Your task to perform on an android device: Clear the cart on walmart.com. Search for razer blade on walmart.com, select the first entry, add it to the cart, then select checkout. Image 0: 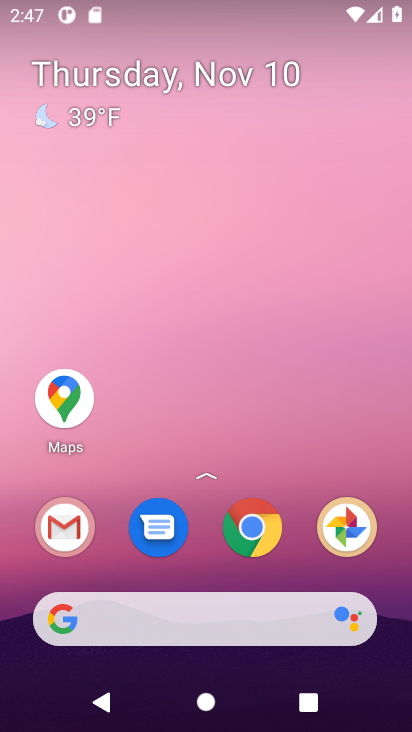
Step 0: drag from (139, 398) to (151, 89)
Your task to perform on an android device: Clear the cart on walmart.com. Search for razer blade on walmart.com, select the first entry, add it to the cart, then select checkout. Image 1: 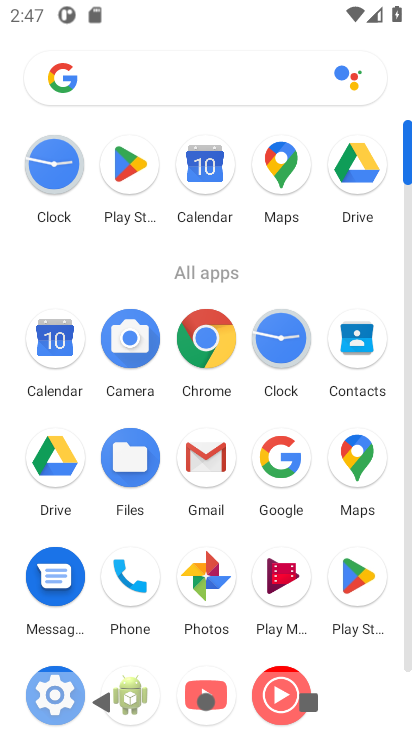
Step 1: click (218, 323)
Your task to perform on an android device: Clear the cart on walmart.com. Search for razer blade on walmart.com, select the first entry, add it to the cart, then select checkout. Image 2: 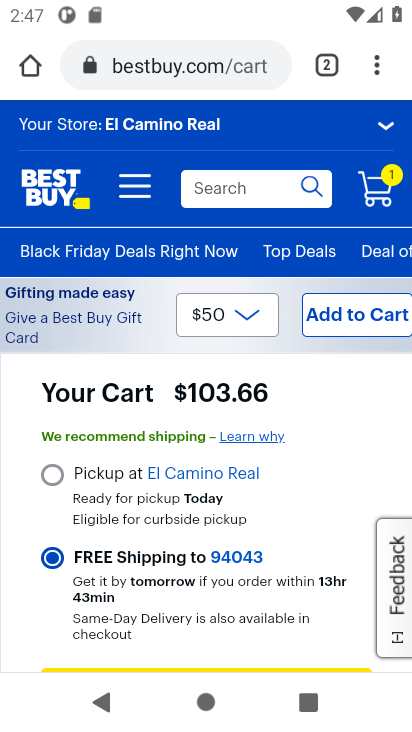
Step 2: click (191, 70)
Your task to perform on an android device: Clear the cart on walmart.com. Search for razer blade on walmart.com, select the first entry, add it to the cart, then select checkout. Image 3: 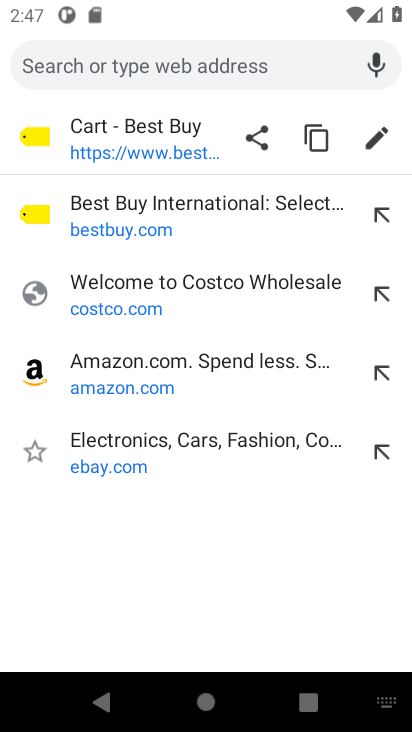
Step 3: type "walmart.com"
Your task to perform on an android device: Clear the cart on walmart.com. Search for razer blade on walmart.com, select the first entry, add it to the cart, then select checkout. Image 4: 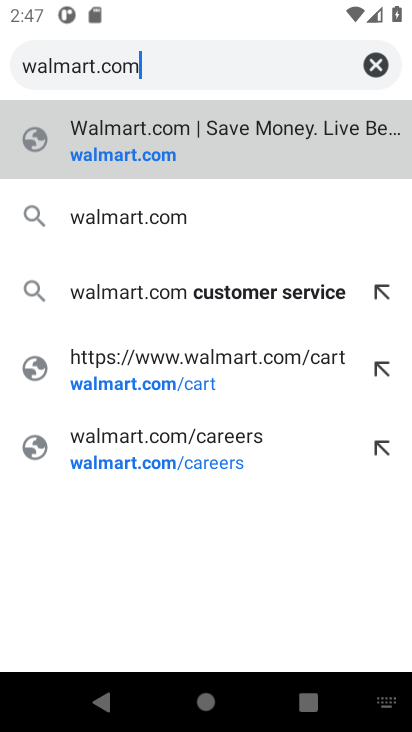
Step 4: press enter
Your task to perform on an android device: Clear the cart on walmart.com. Search for razer blade on walmart.com, select the first entry, add it to the cart, then select checkout. Image 5: 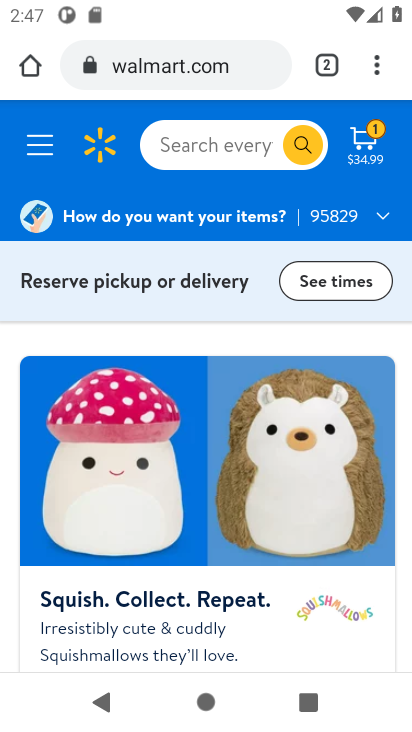
Step 5: click (352, 144)
Your task to perform on an android device: Clear the cart on walmart.com. Search for razer blade on walmart.com, select the first entry, add it to the cart, then select checkout. Image 6: 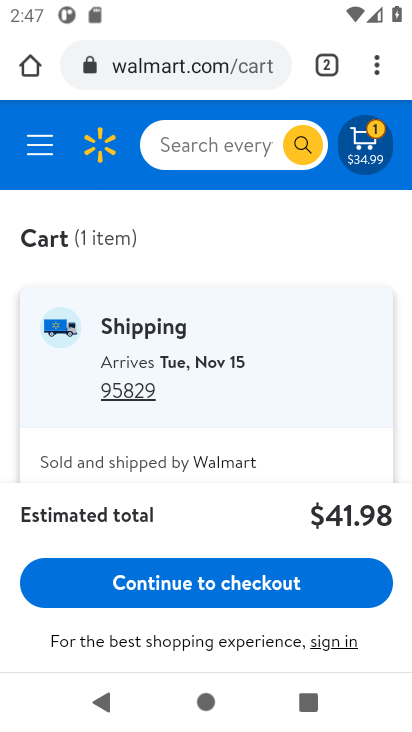
Step 6: drag from (236, 602) to (230, 301)
Your task to perform on an android device: Clear the cart on walmart.com. Search for razer blade on walmart.com, select the first entry, add it to the cart, then select checkout. Image 7: 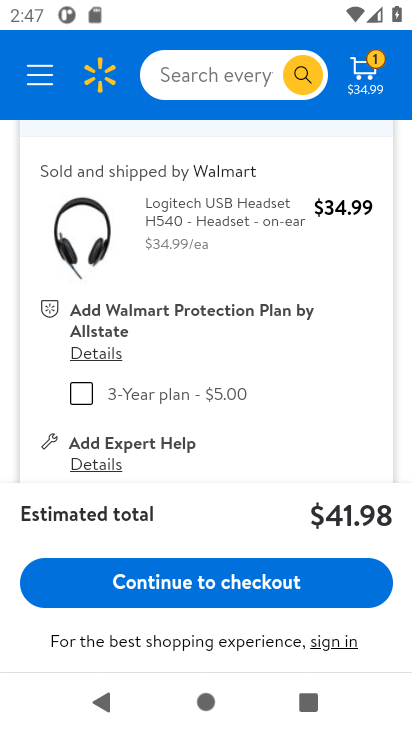
Step 7: drag from (263, 462) to (248, 174)
Your task to perform on an android device: Clear the cart on walmart.com. Search for razer blade on walmart.com, select the first entry, add it to the cart, then select checkout. Image 8: 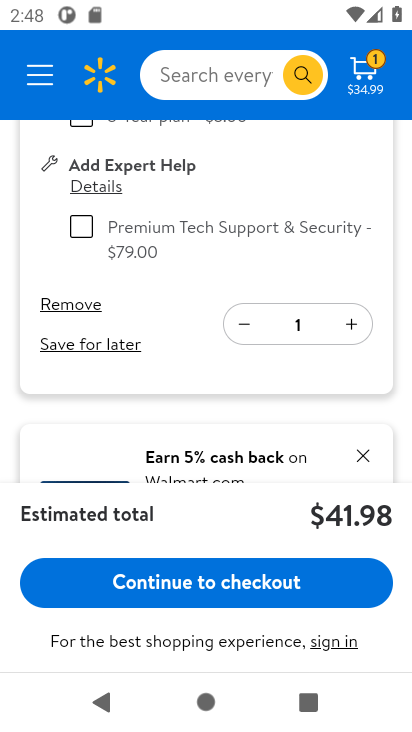
Step 8: drag from (262, 426) to (279, 184)
Your task to perform on an android device: Clear the cart on walmart.com. Search for razer blade on walmart.com, select the first entry, add it to the cart, then select checkout. Image 9: 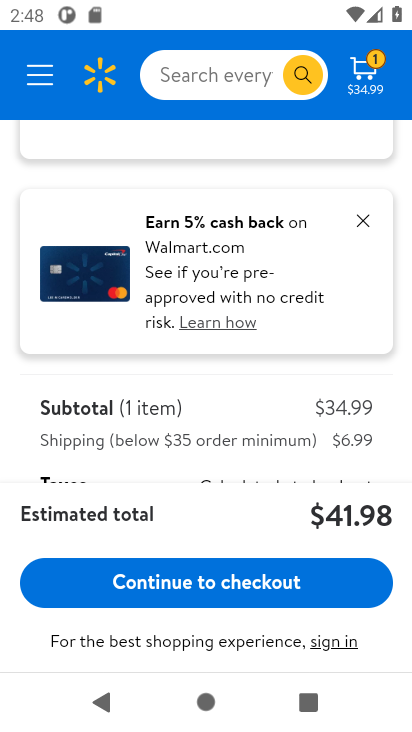
Step 9: click (363, 221)
Your task to perform on an android device: Clear the cart on walmart.com. Search for razer blade on walmart.com, select the first entry, add it to the cart, then select checkout. Image 10: 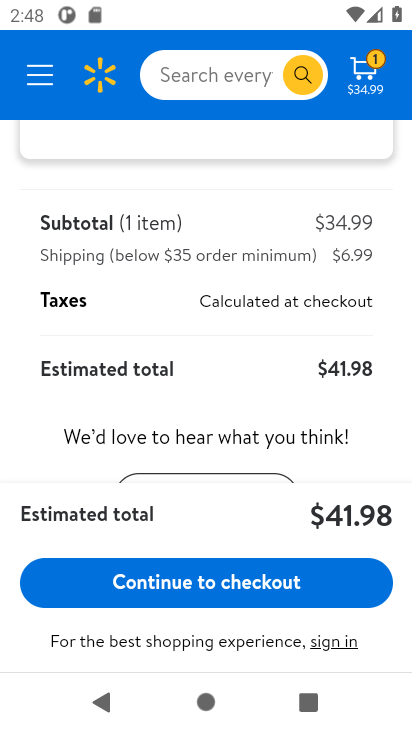
Step 10: drag from (294, 214) to (297, 385)
Your task to perform on an android device: Clear the cart on walmart.com. Search for razer blade on walmart.com, select the first entry, add it to the cart, then select checkout. Image 11: 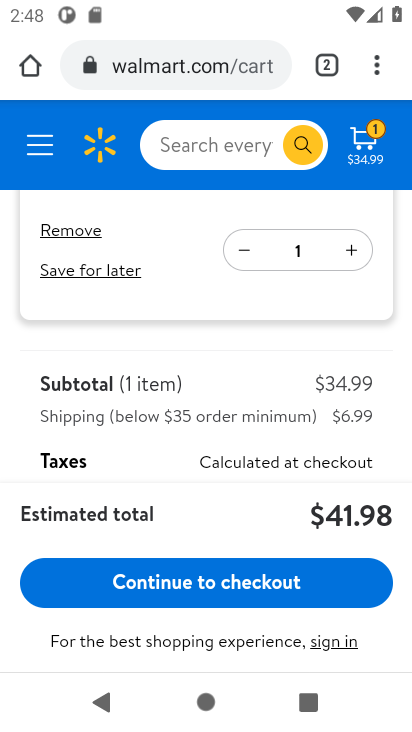
Step 11: drag from (258, 239) to (277, 436)
Your task to perform on an android device: Clear the cart on walmart.com. Search for razer blade on walmart.com, select the first entry, add it to the cart, then select checkout. Image 12: 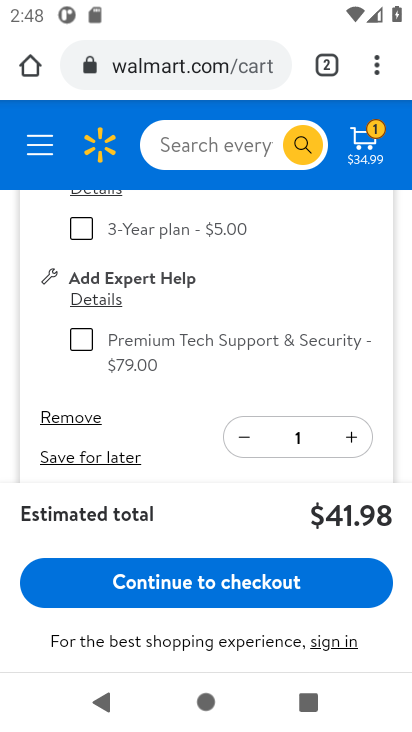
Step 12: drag from (257, 238) to (274, 450)
Your task to perform on an android device: Clear the cart on walmart.com. Search for razer blade on walmart.com, select the first entry, add it to the cart, then select checkout. Image 13: 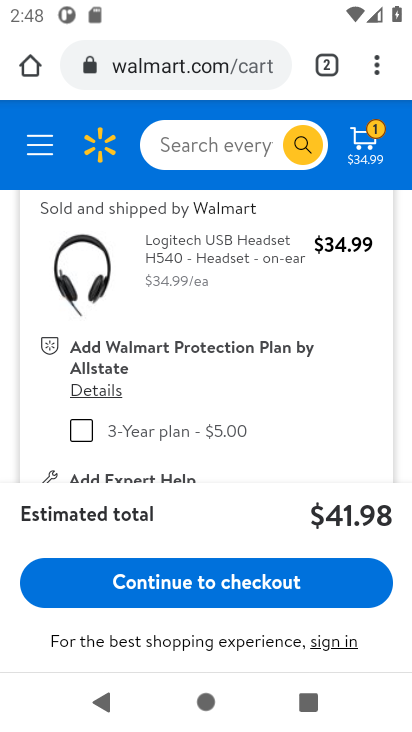
Step 13: drag from (308, 195) to (319, 427)
Your task to perform on an android device: Clear the cart on walmart.com. Search for razer blade on walmart.com, select the first entry, add it to the cart, then select checkout. Image 14: 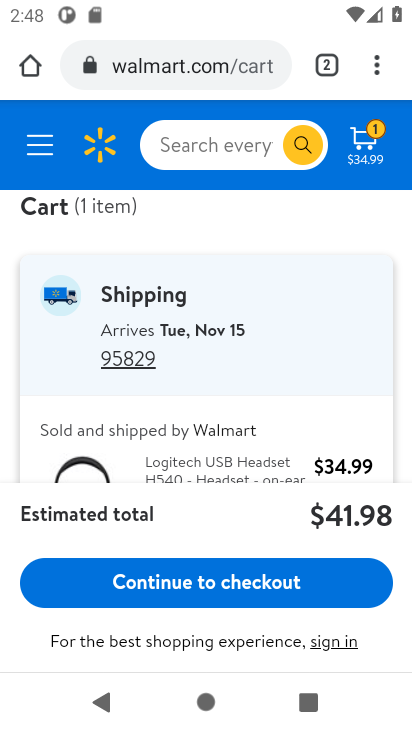
Step 14: drag from (283, 272) to (303, 504)
Your task to perform on an android device: Clear the cart on walmart.com. Search for razer blade on walmart.com, select the first entry, add it to the cart, then select checkout. Image 15: 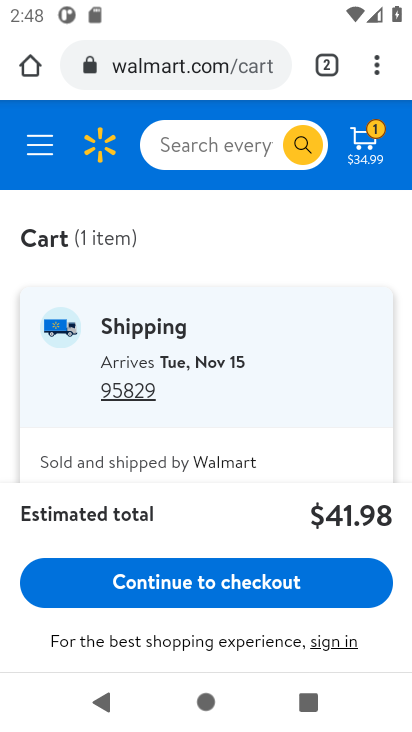
Step 15: click (297, 262)
Your task to perform on an android device: Clear the cart on walmart.com. Search for razer blade on walmart.com, select the first entry, add it to the cart, then select checkout. Image 16: 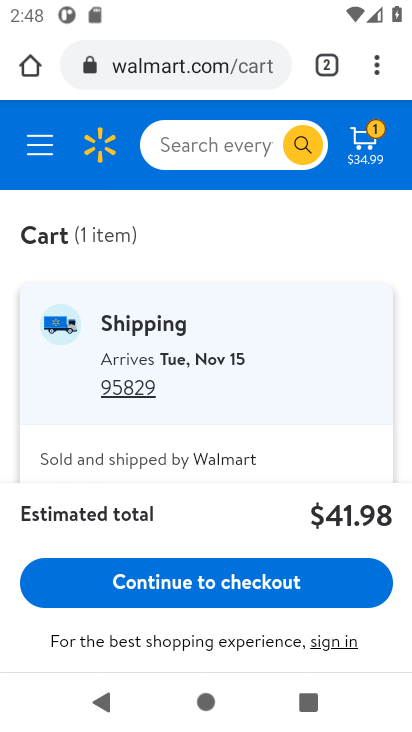
Step 16: drag from (241, 459) to (228, 219)
Your task to perform on an android device: Clear the cart on walmart.com. Search for razer blade on walmart.com, select the first entry, add it to the cart, then select checkout. Image 17: 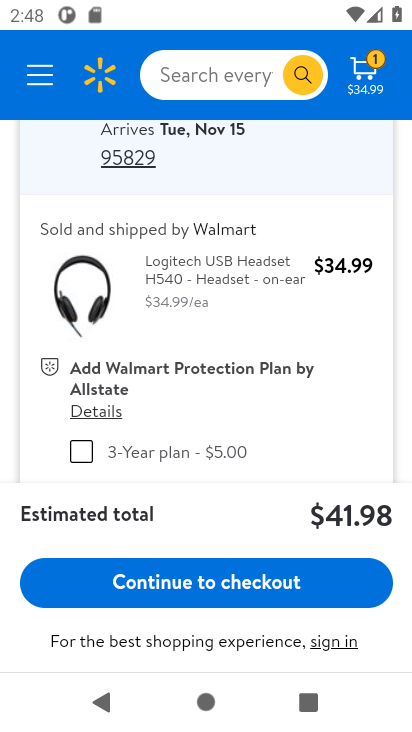
Step 17: drag from (231, 368) to (241, 144)
Your task to perform on an android device: Clear the cart on walmart.com. Search for razer blade on walmart.com, select the first entry, add it to the cart, then select checkout. Image 18: 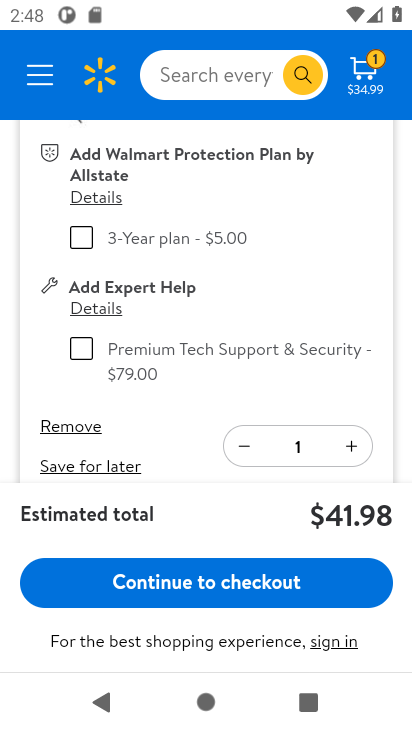
Step 18: click (248, 446)
Your task to perform on an android device: Clear the cart on walmart.com. Search for razer blade on walmart.com, select the first entry, add it to the cart, then select checkout. Image 19: 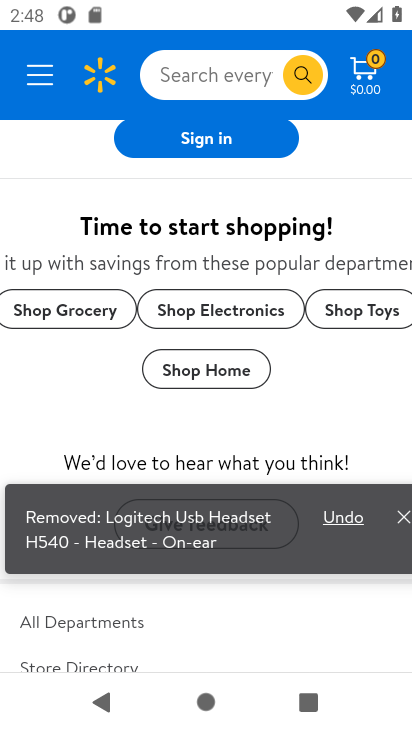
Step 19: click (181, 74)
Your task to perform on an android device: Clear the cart on walmart.com. Search for razer blade on walmart.com, select the first entry, add it to the cart, then select checkout. Image 20: 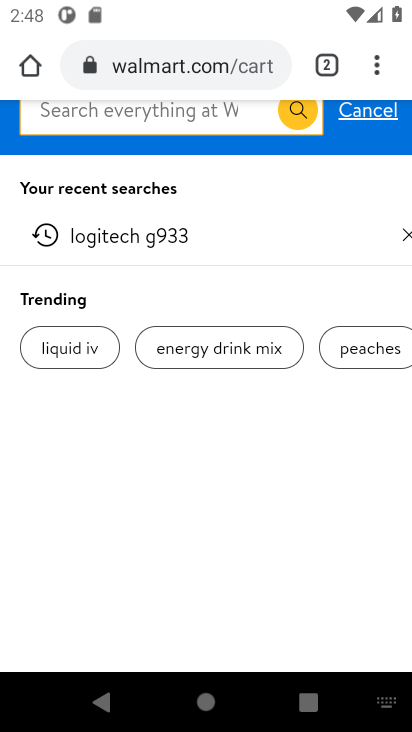
Step 20: type "razer blade "
Your task to perform on an android device: Clear the cart on walmart.com. Search for razer blade on walmart.com, select the first entry, add it to the cart, then select checkout. Image 21: 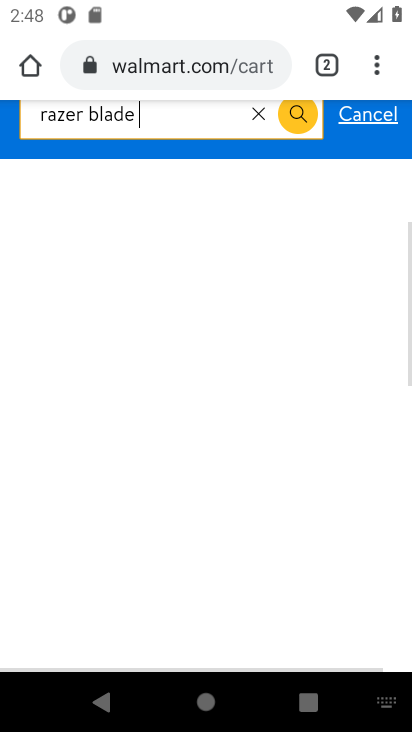
Step 21: press enter
Your task to perform on an android device: Clear the cart on walmart.com. Search for razer blade on walmart.com, select the first entry, add it to the cart, then select checkout. Image 22: 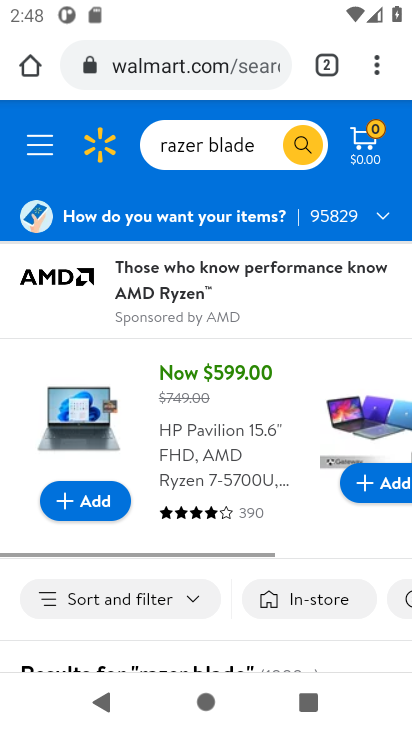
Step 22: click (371, 481)
Your task to perform on an android device: Clear the cart on walmart.com. Search for razer blade on walmart.com, select the first entry, add it to the cart, then select checkout. Image 23: 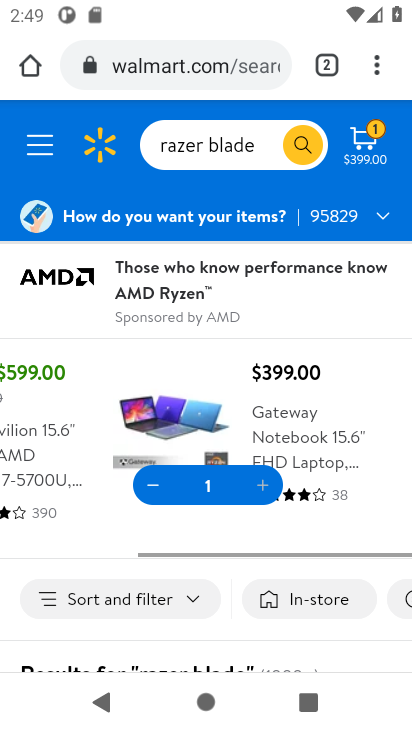
Step 23: click (362, 138)
Your task to perform on an android device: Clear the cart on walmart.com. Search for razer blade on walmart.com, select the first entry, add it to the cart, then select checkout. Image 24: 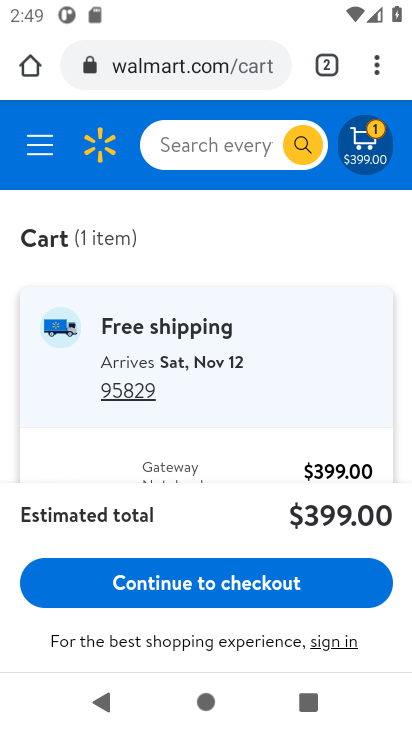
Step 24: click (220, 581)
Your task to perform on an android device: Clear the cart on walmart.com. Search for razer blade on walmart.com, select the first entry, add it to the cart, then select checkout. Image 25: 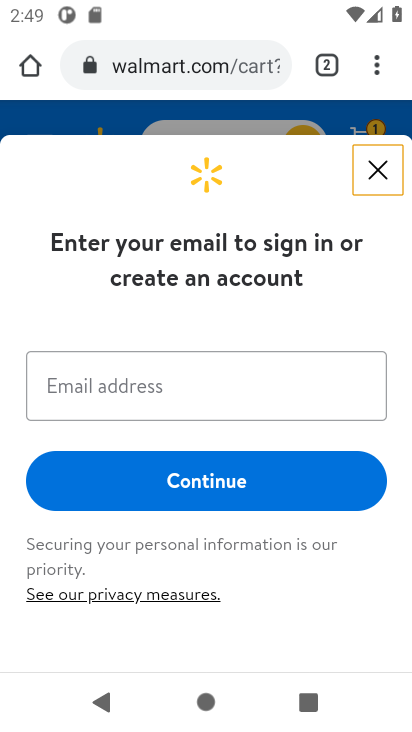
Step 25: click (373, 179)
Your task to perform on an android device: Clear the cart on walmart.com. Search for razer blade on walmart.com, select the first entry, add it to the cart, then select checkout. Image 26: 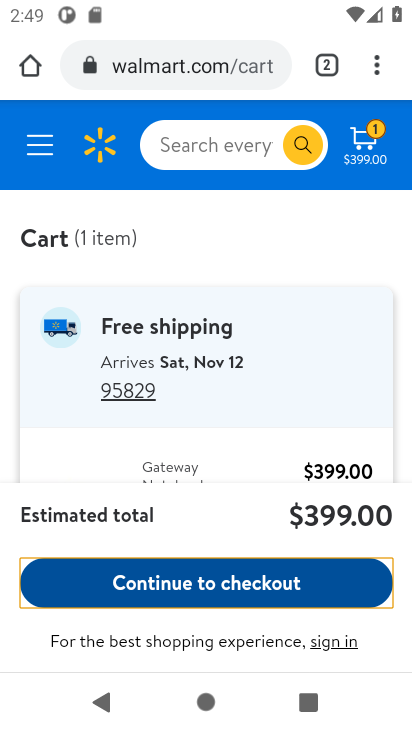
Step 26: click (195, 585)
Your task to perform on an android device: Clear the cart on walmart.com. Search for razer blade on walmart.com, select the first entry, add it to the cart, then select checkout. Image 27: 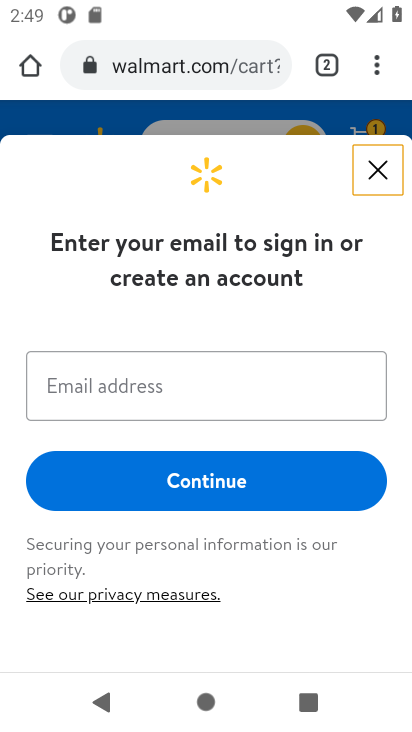
Step 27: task complete